Your task to perform on an android device: Go to Maps Image 0: 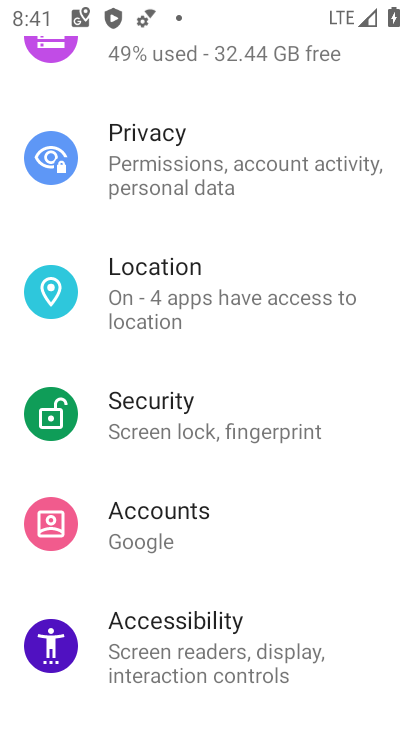
Step 0: drag from (206, 596) to (261, 63)
Your task to perform on an android device: Go to Maps Image 1: 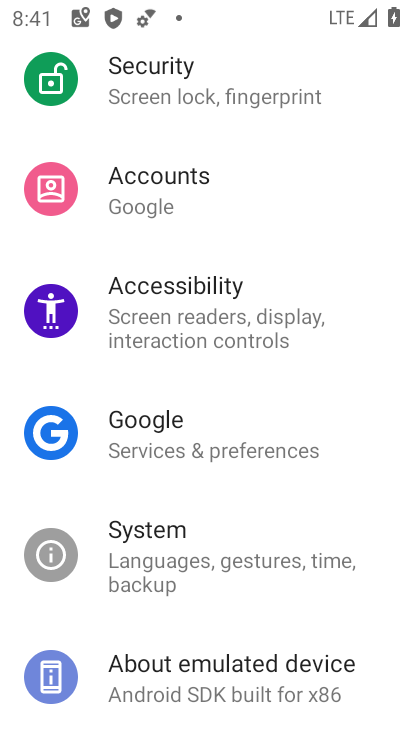
Step 1: press home button
Your task to perform on an android device: Go to Maps Image 2: 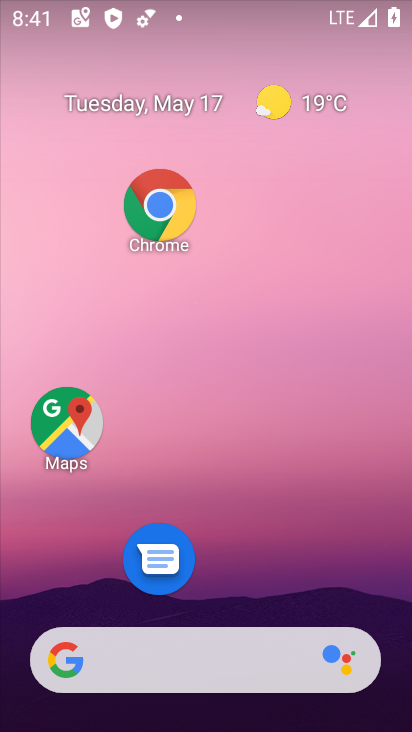
Step 2: click (63, 408)
Your task to perform on an android device: Go to Maps Image 3: 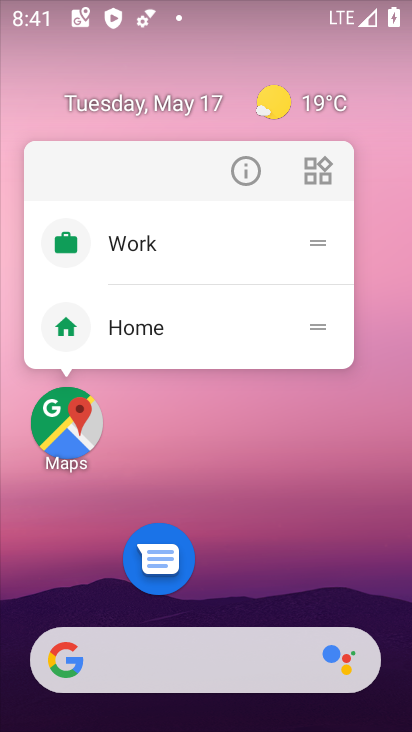
Step 3: click (229, 178)
Your task to perform on an android device: Go to Maps Image 4: 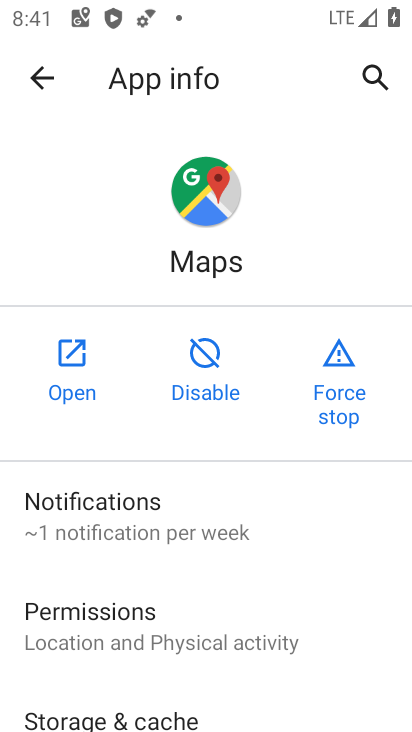
Step 4: click (66, 362)
Your task to perform on an android device: Go to Maps Image 5: 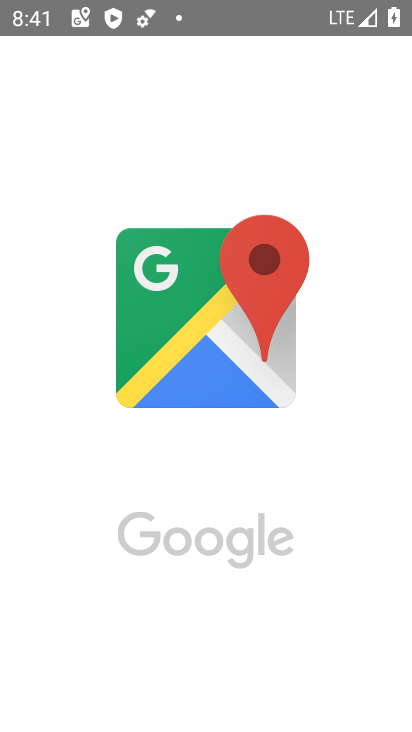
Step 5: task complete